Your task to perform on an android device: open app "Move to iOS" (install if not already installed), go to login, and select forgot password Image 0: 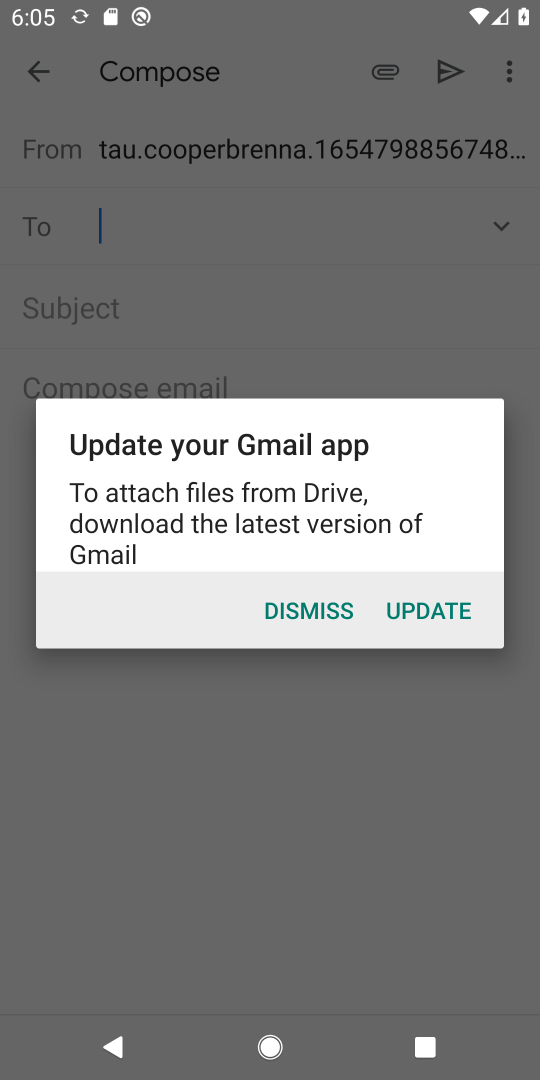
Step 0: press home button
Your task to perform on an android device: open app "Move to iOS" (install if not already installed), go to login, and select forgot password Image 1: 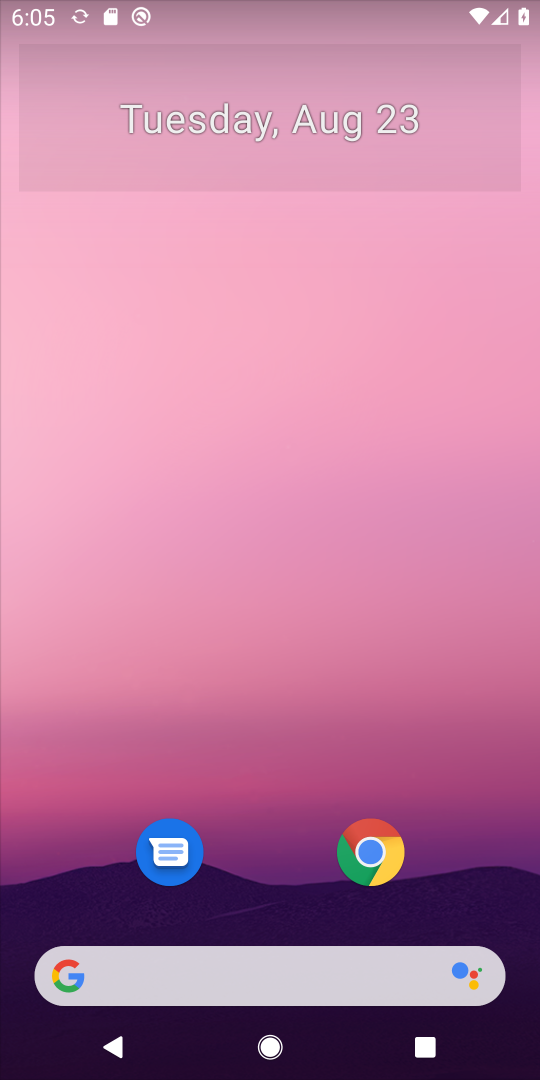
Step 1: drag from (258, 972) to (342, 9)
Your task to perform on an android device: open app "Move to iOS" (install if not already installed), go to login, and select forgot password Image 2: 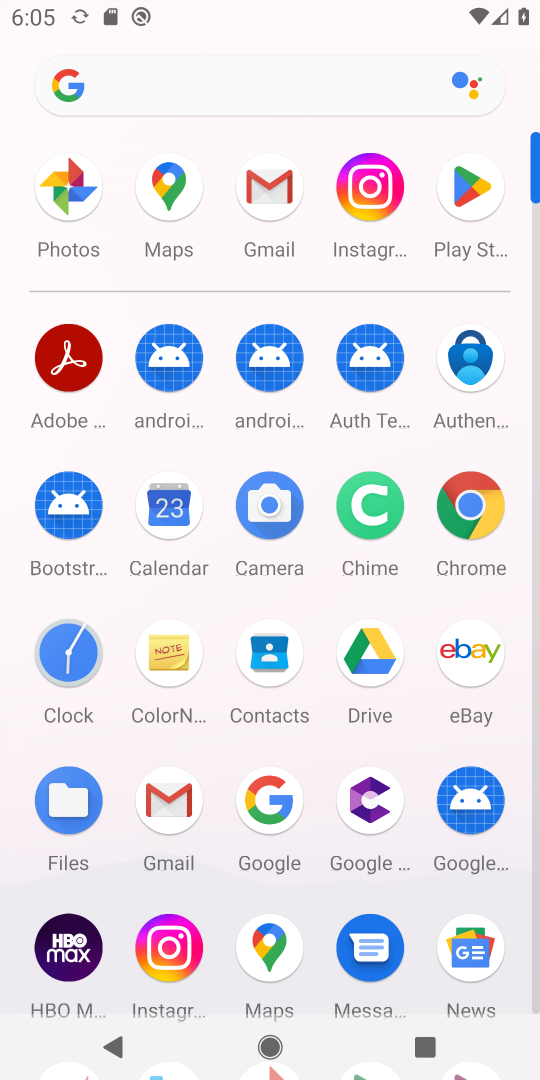
Step 2: click (469, 193)
Your task to perform on an android device: open app "Move to iOS" (install if not already installed), go to login, and select forgot password Image 3: 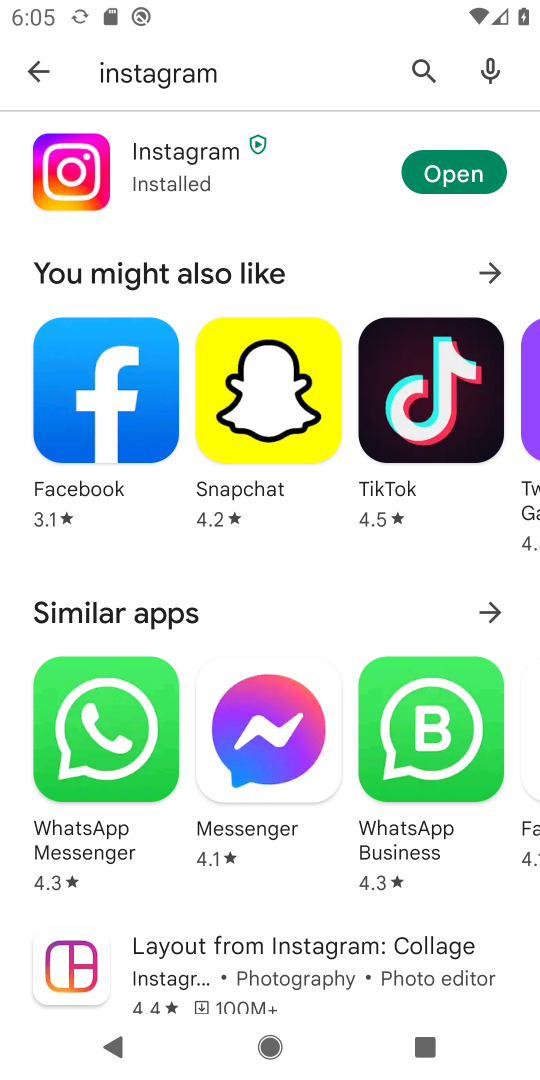
Step 3: press back button
Your task to perform on an android device: open app "Move to iOS" (install if not already installed), go to login, and select forgot password Image 4: 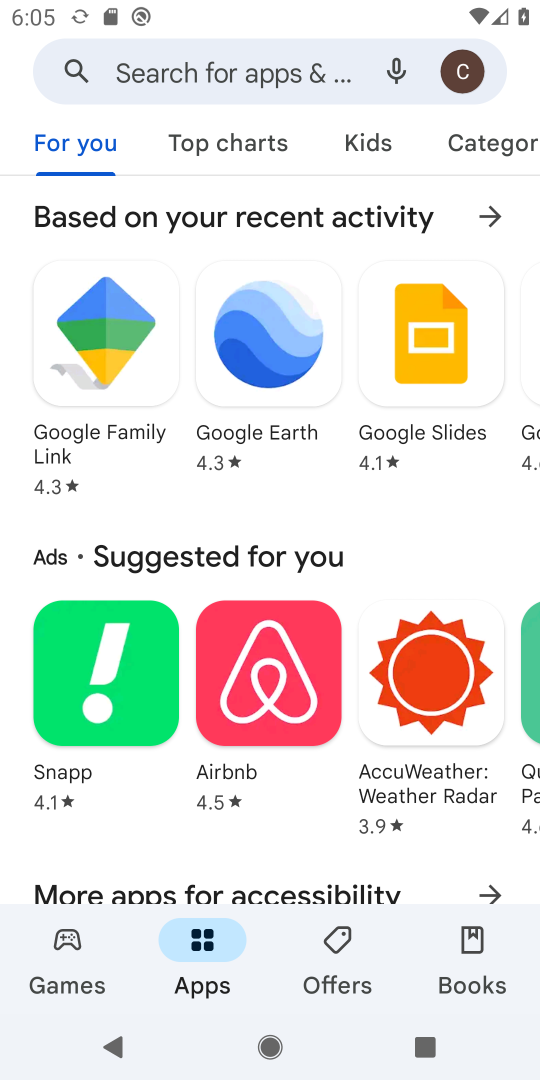
Step 4: click (294, 74)
Your task to perform on an android device: open app "Move to iOS" (install if not already installed), go to login, and select forgot password Image 5: 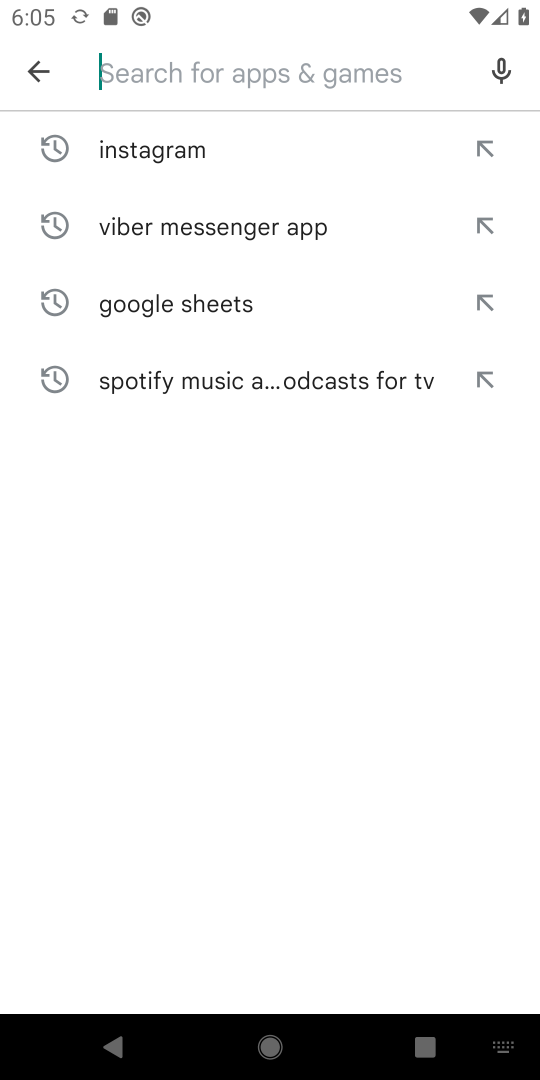
Step 5: type "Move to iOS"
Your task to perform on an android device: open app "Move to iOS" (install if not already installed), go to login, and select forgot password Image 6: 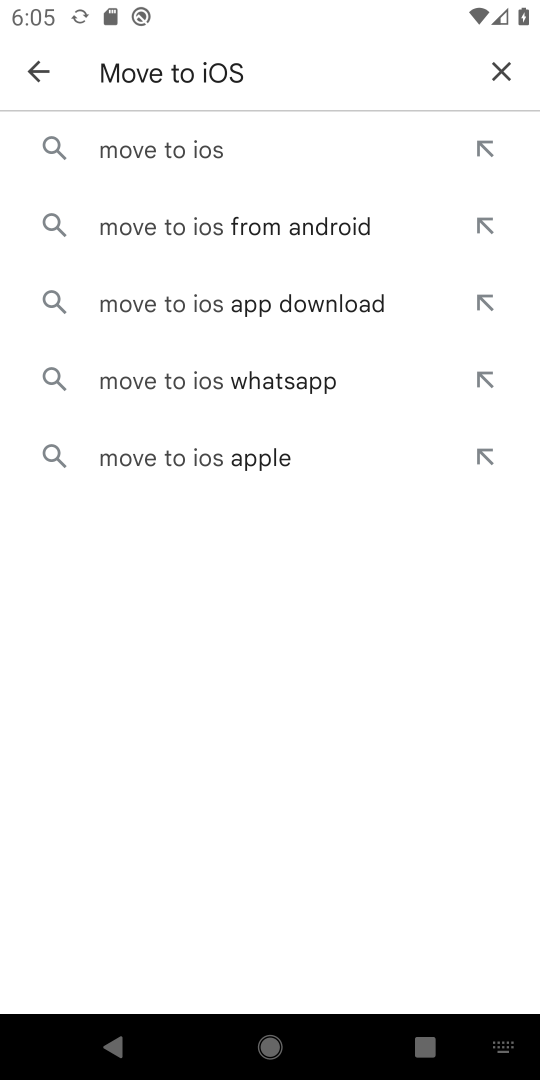
Step 6: click (201, 150)
Your task to perform on an android device: open app "Move to iOS" (install if not already installed), go to login, and select forgot password Image 7: 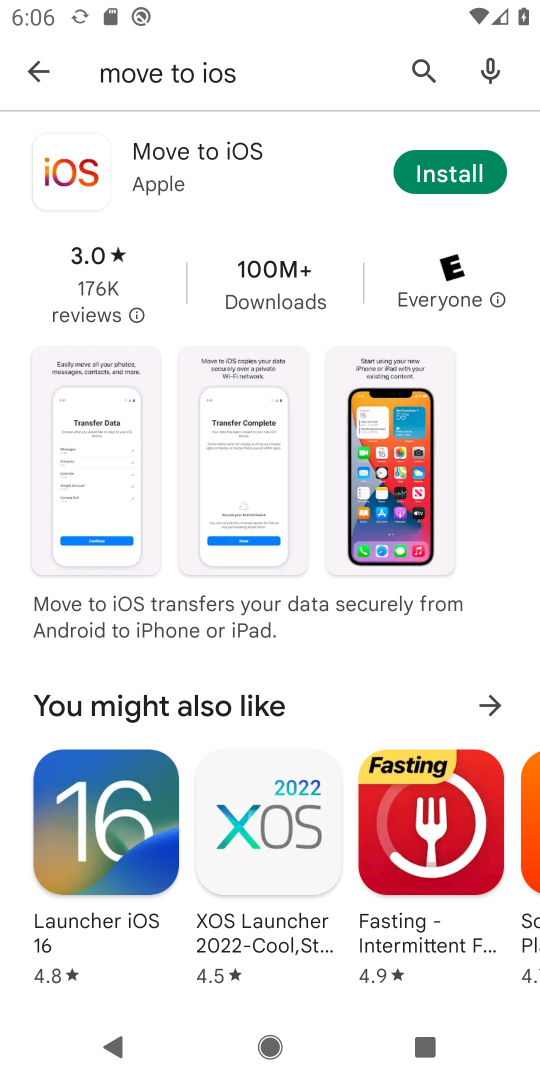
Step 7: click (457, 179)
Your task to perform on an android device: open app "Move to iOS" (install if not already installed), go to login, and select forgot password Image 8: 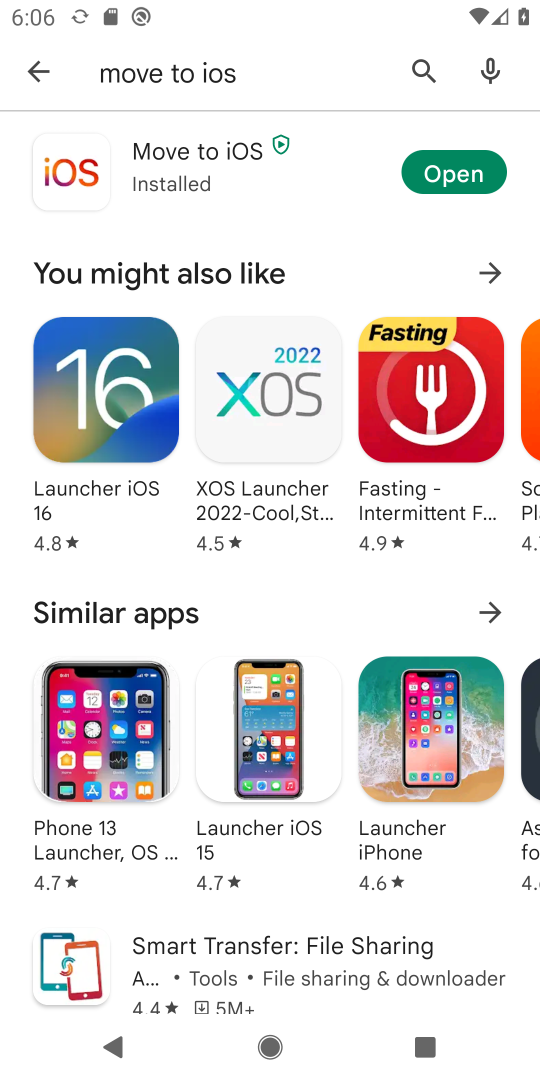
Step 8: click (457, 179)
Your task to perform on an android device: open app "Move to iOS" (install if not already installed), go to login, and select forgot password Image 9: 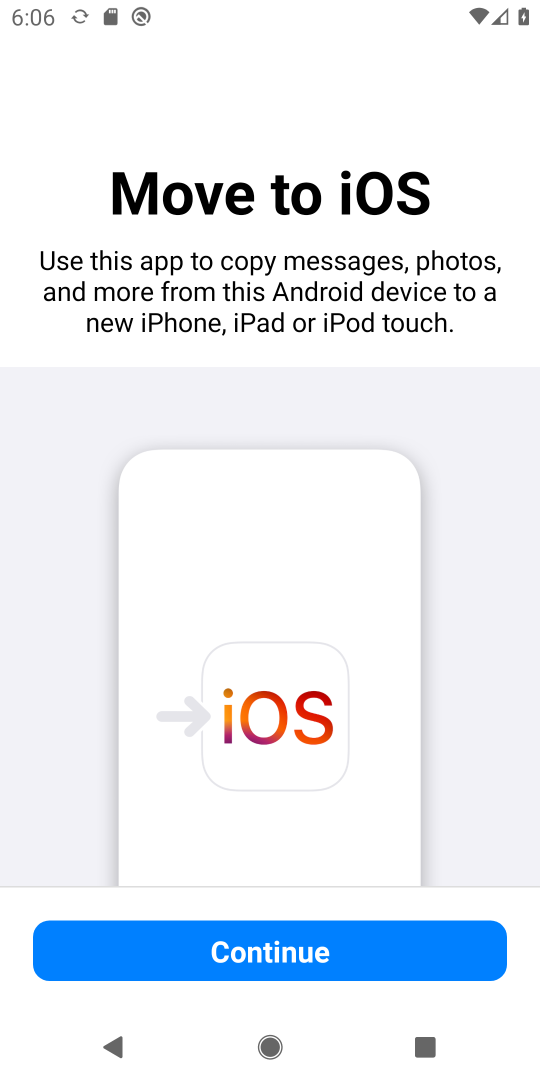
Step 9: click (265, 954)
Your task to perform on an android device: open app "Move to iOS" (install if not already installed), go to login, and select forgot password Image 10: 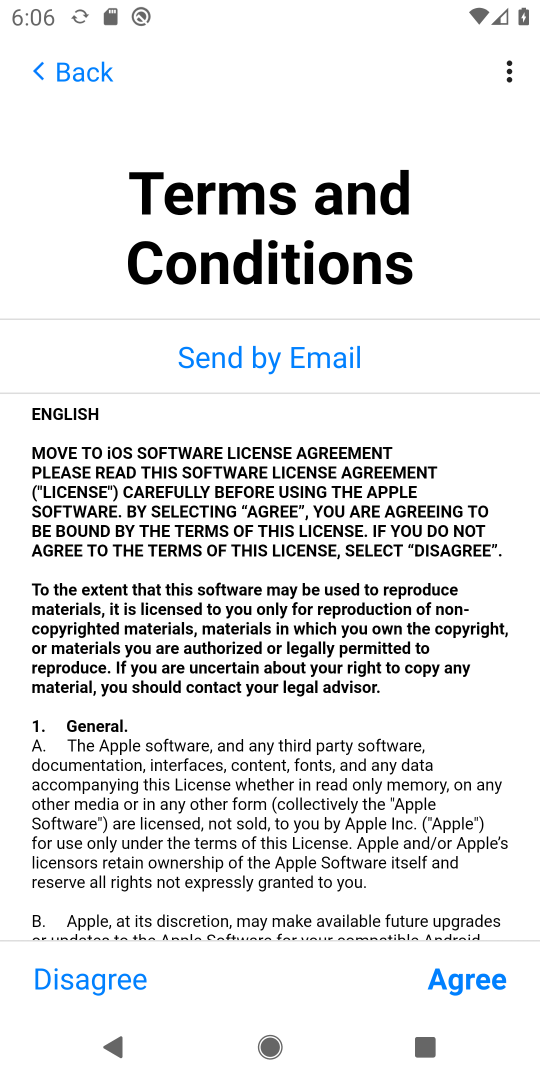
Step 10: click (467, 993)
Your task to perform on an android device: open app "Move to iOS" (install if not already installed), go to login, and select forgot password Image 11: 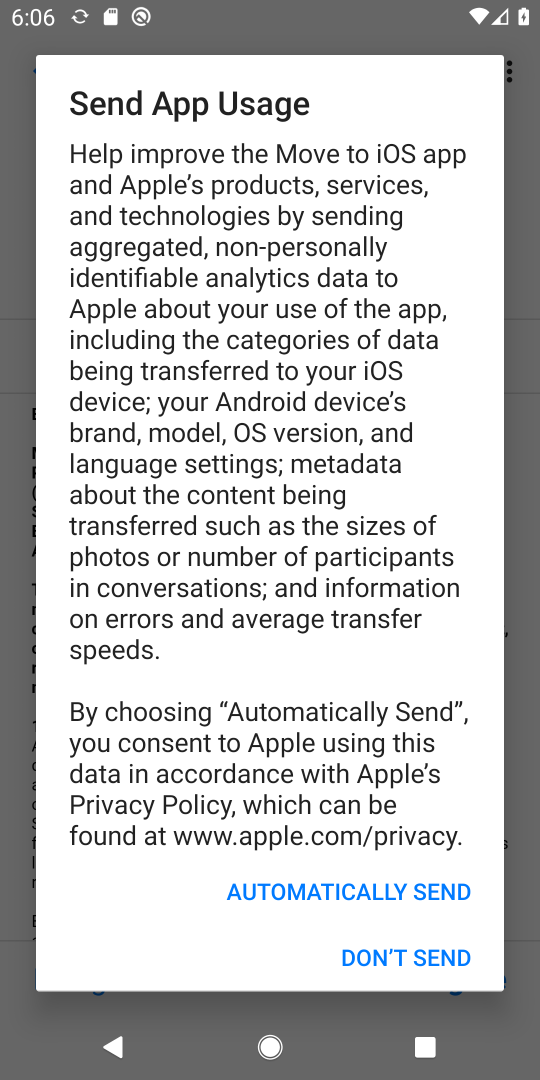
Step 11: click (442, 952)
Your task to perform on an android device: open app "Move to iOS" (install if not already installed), go to login, and select forgot password Image 12: 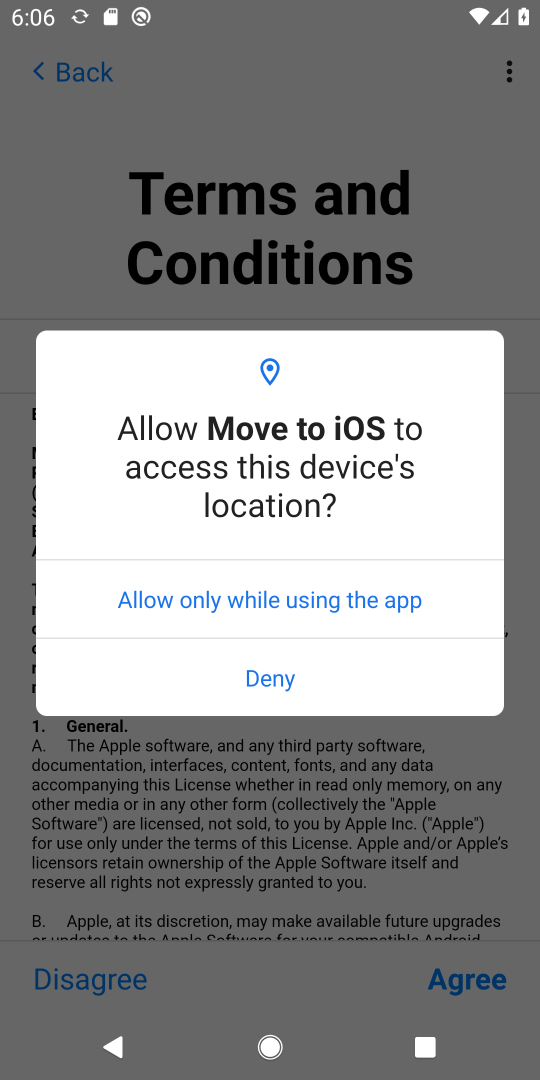
Step 12: click (271, 662)
Your task to perform on an android device: open app "Move to iOS" (install if not already installed), go to login, and select forgot password Image 13: 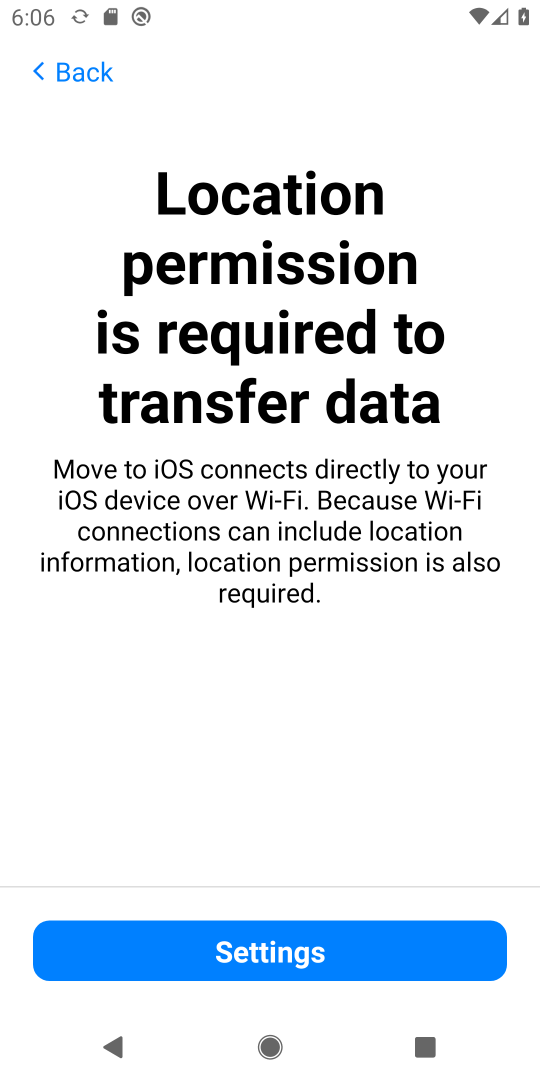
Step 13: click (289, 965)
Your task to perform on an android device: open app "Move to iOS" (install if not already installed), go to login, and select forgot password Image 14: 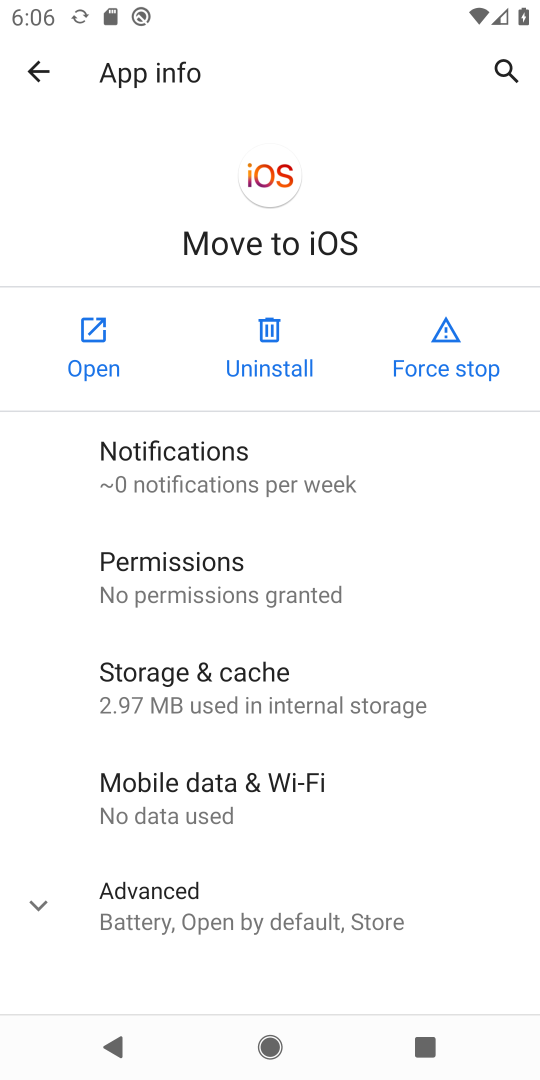
Step 14: drag from (263, 538) to (324, 576)
Your task to perform on an android device: open app "Move to iOS" (install if not already installed), go to login, and select forgot password Image 15: 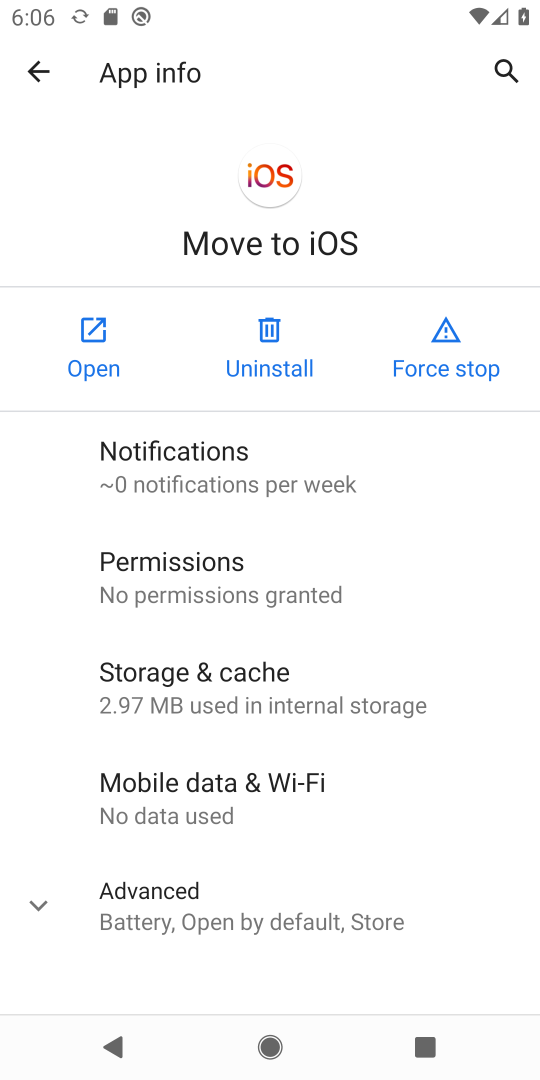
Step 15: drag from (282, 756) to (327, 298)
Your task to perform on an android device: open app "Move to iOS" (install if not already installed), go to login, and select forgot password Image 16: 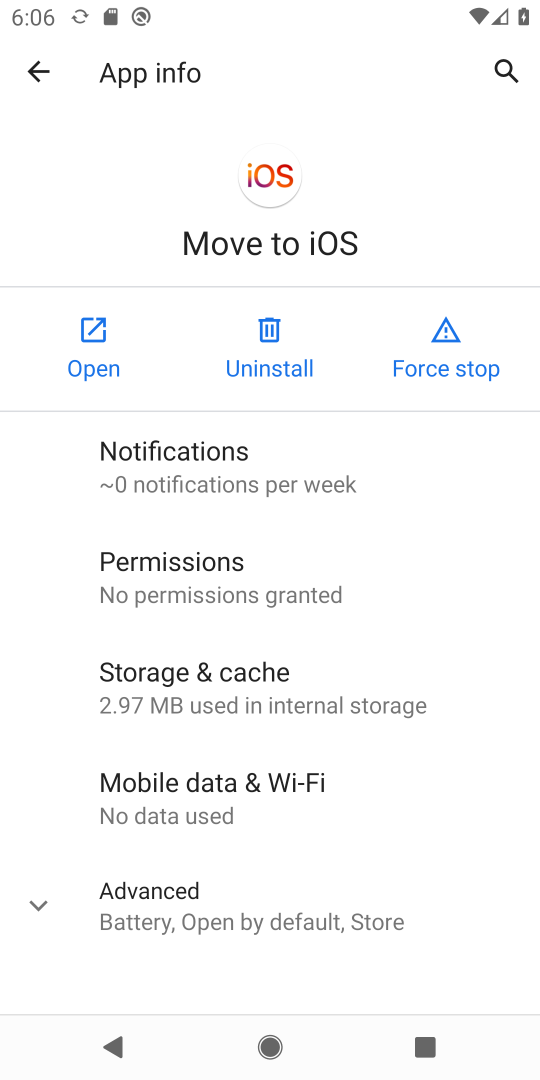
Step 16: click (89, 329)
Your task to perform on an android device: open app "Move to iOS" (install if not already installed), go to login, and select forgot password Image 17: 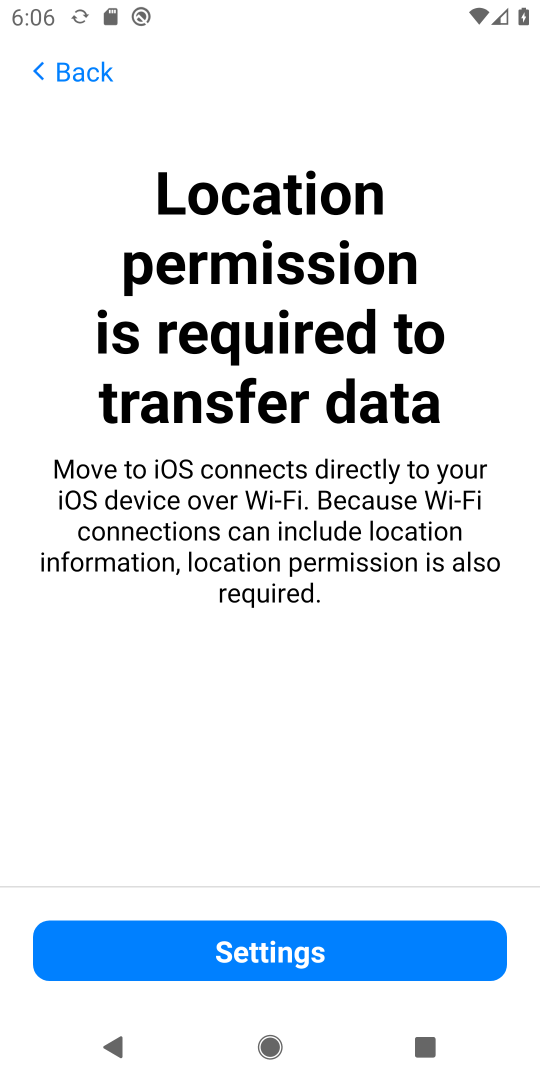
Step 17: click (262, 961)
Your task to perform on an android device: open app "Move to iOS" (install if not already installed), go to login, and select forgot password Image 18: 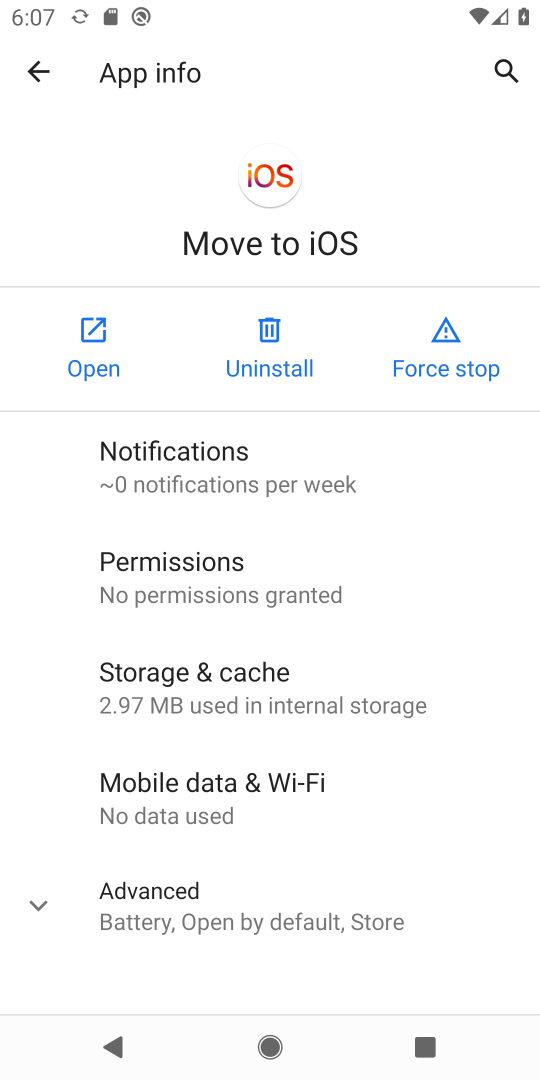
Step 18: click (280, 599)
Your task to perform on an android device: open app "Move to iOS" (install if not already installed), go to login, and select forgot password Image 19: 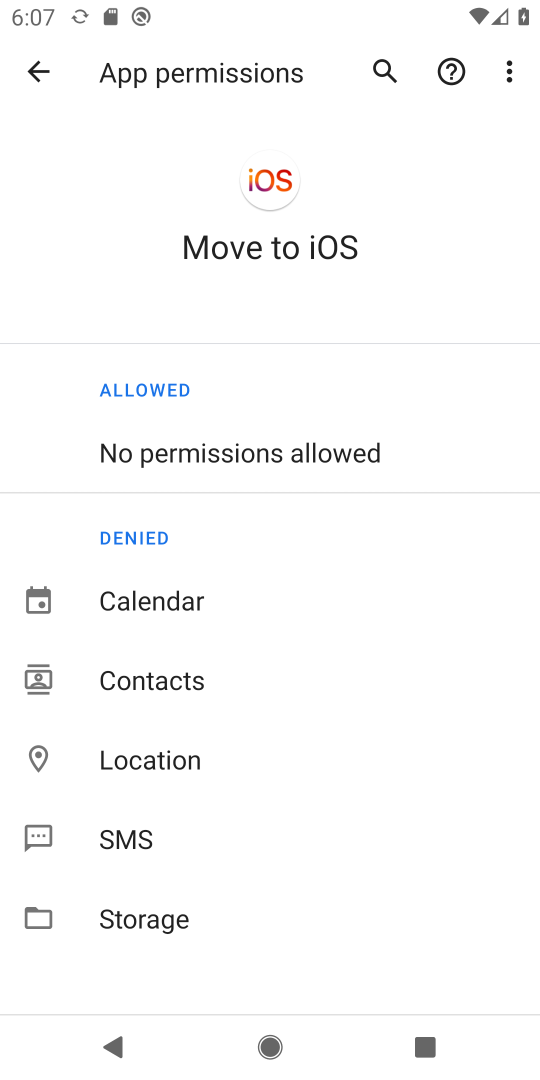
Step 19: click (216, 458)
Your task to perform on an android device: open app "Move to iOS" (install if not already installed), go to login, and select forgot password Image 20: 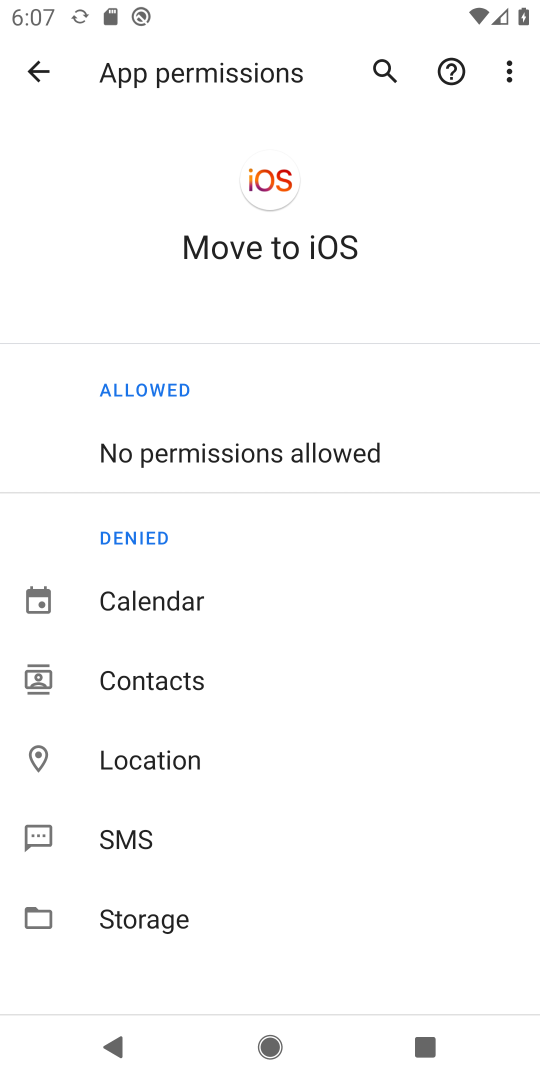
Step 20: click (216, 458)
Your task to perform on an android device: open app "Move to iOS" (install if not already installed), go to login, and select forgot password Image 21: 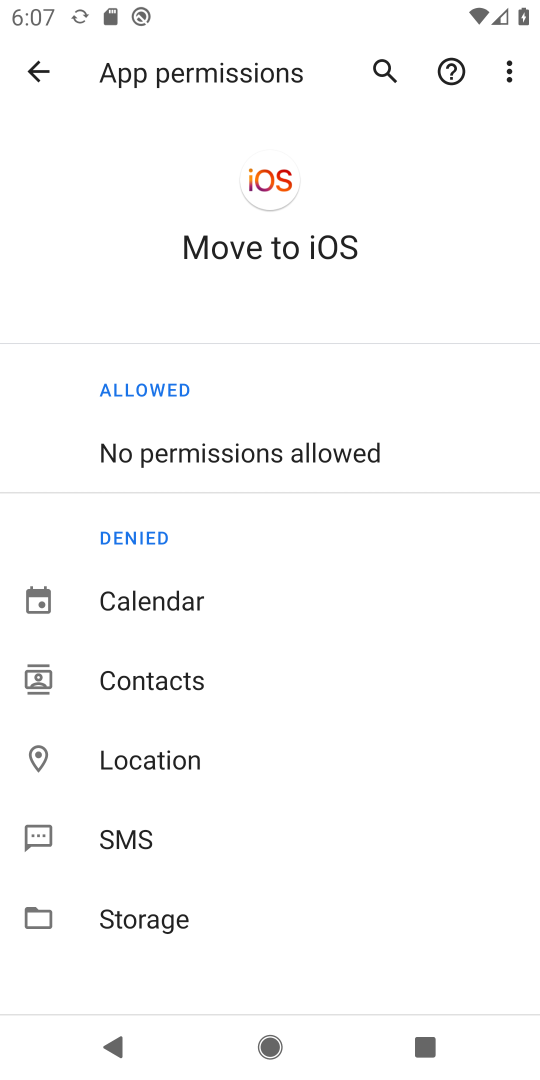
Step 21: click (152, 758)
Your task to perform on an android device: open app "Move to iOS" (install if not already installed), go to login, and select forgot password Image 22: 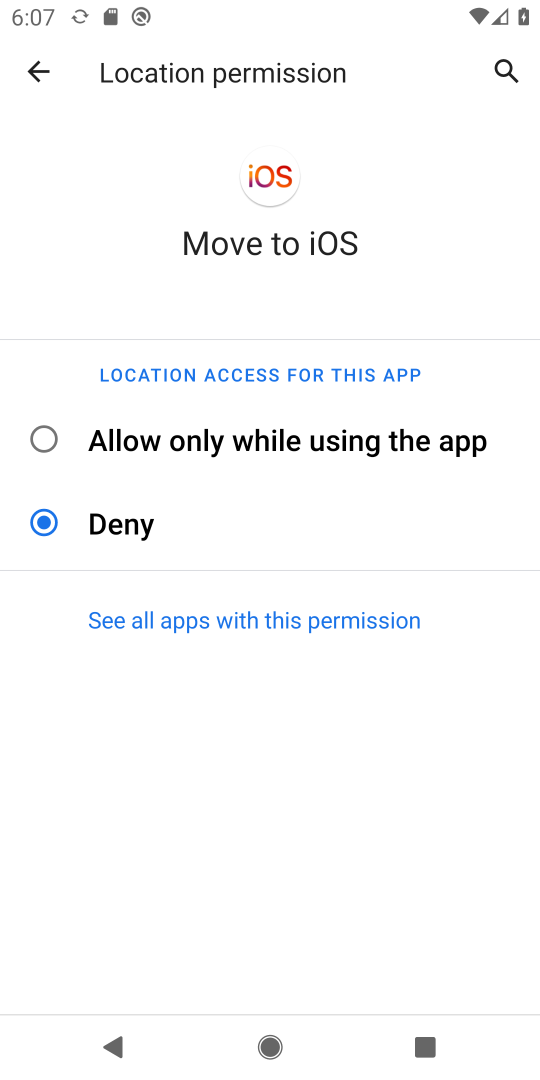
Step 22: click (42, 439)
Your task to perform on an android device: open app "Move to iOS" (install if not already installed), go to login, and select forgot password Image 23: 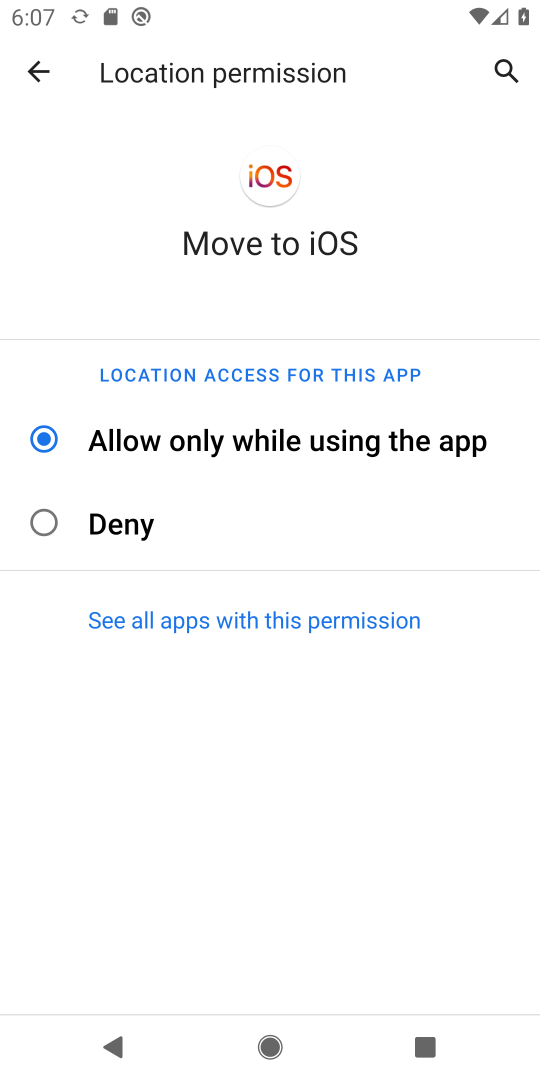
Step 23: press back button
Your task to perform on an android device: open app "Move to iOS" (install if not already installed), go to login, and select forgot password Image 24: 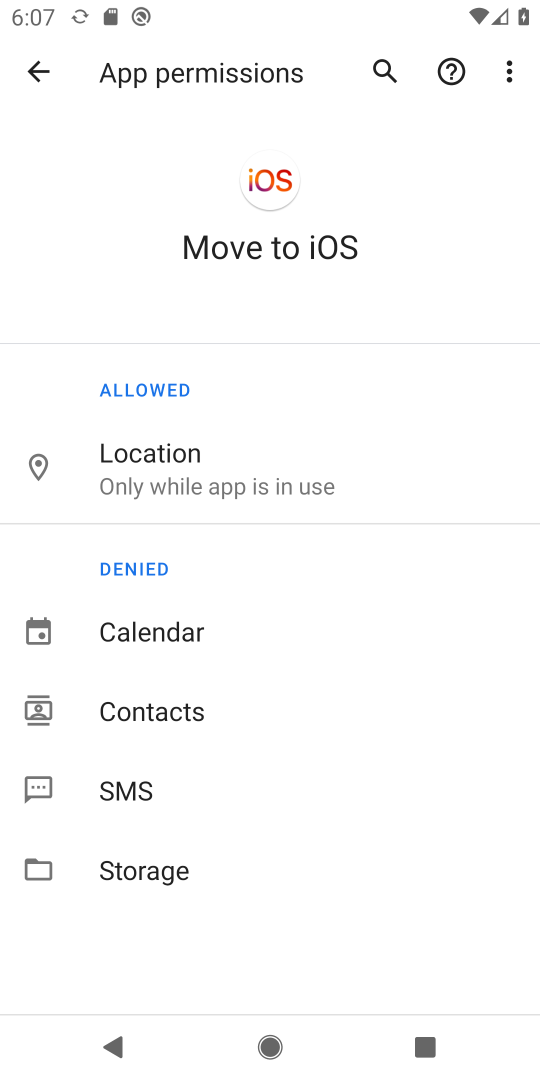
Step 24: press back button
Your task to perform on an android device: open app "Move to iOS" (install if not already installed), go to login, and select forgot password Image 25: 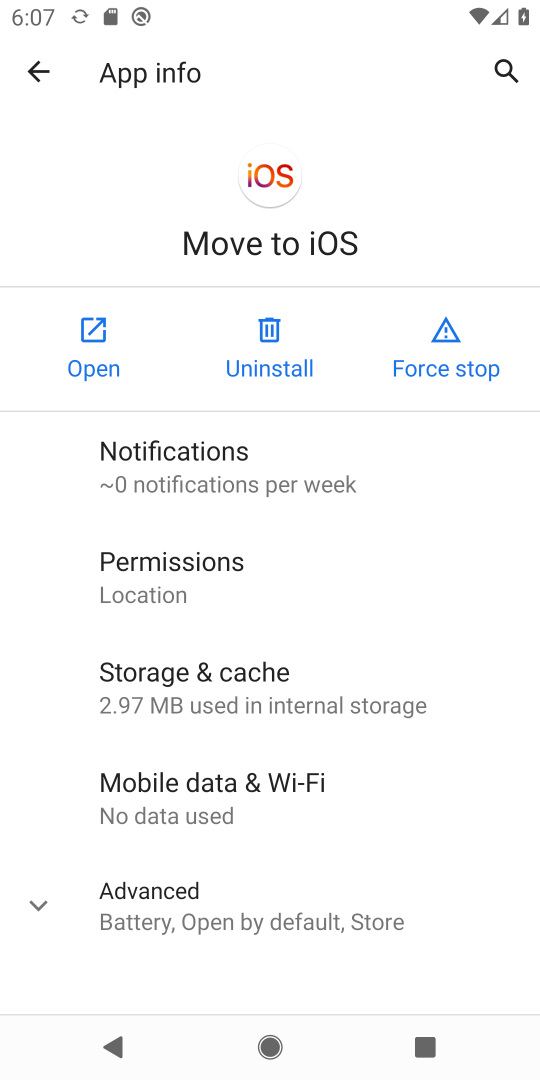
Step 25: click (91, 341)
Your task to perform on an android device: open app "Move to iOS" (install if not already installed), go to login, and select forgot password Image 26: 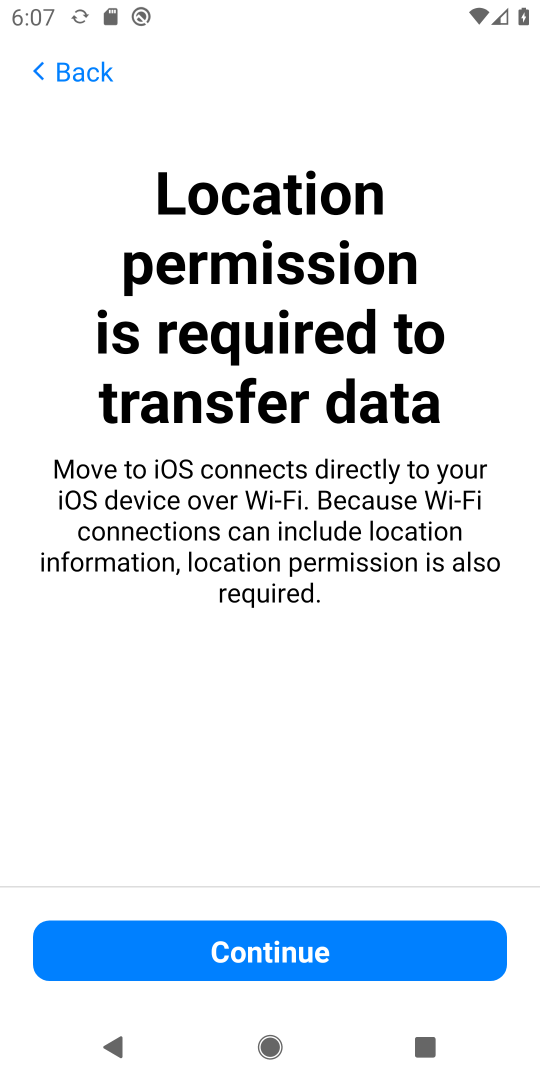
Step 26: click (308, 944)
Your task to perform on an android device: open app "Move to iOS" (install if not already installed), go to login, and select forgot password Image 27: 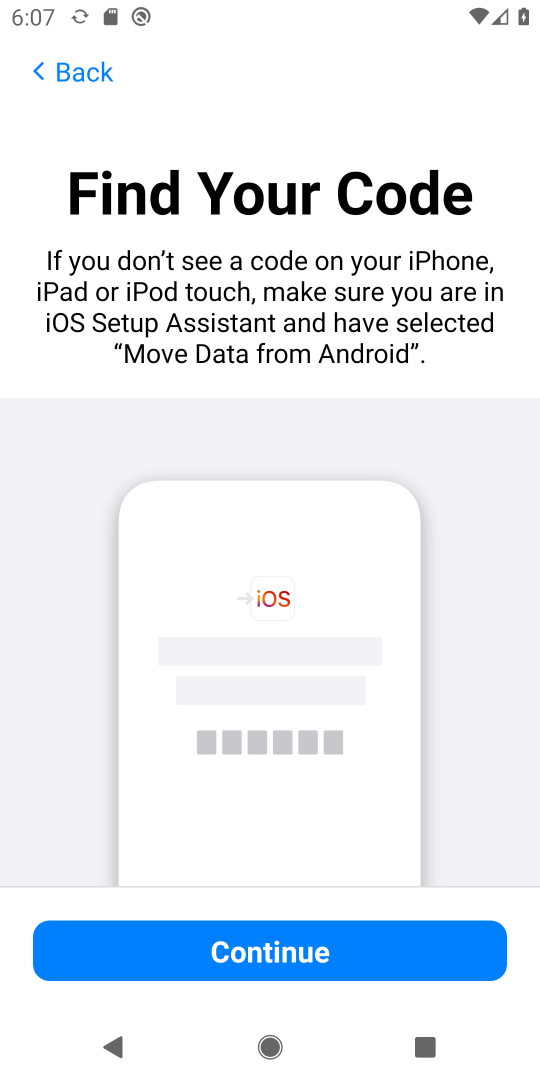
Step 27: click (308, 944)
Your task to perform on an android device: open app "Move to iOS" (install if not already installed), go to login, and select forgot password Image 28: 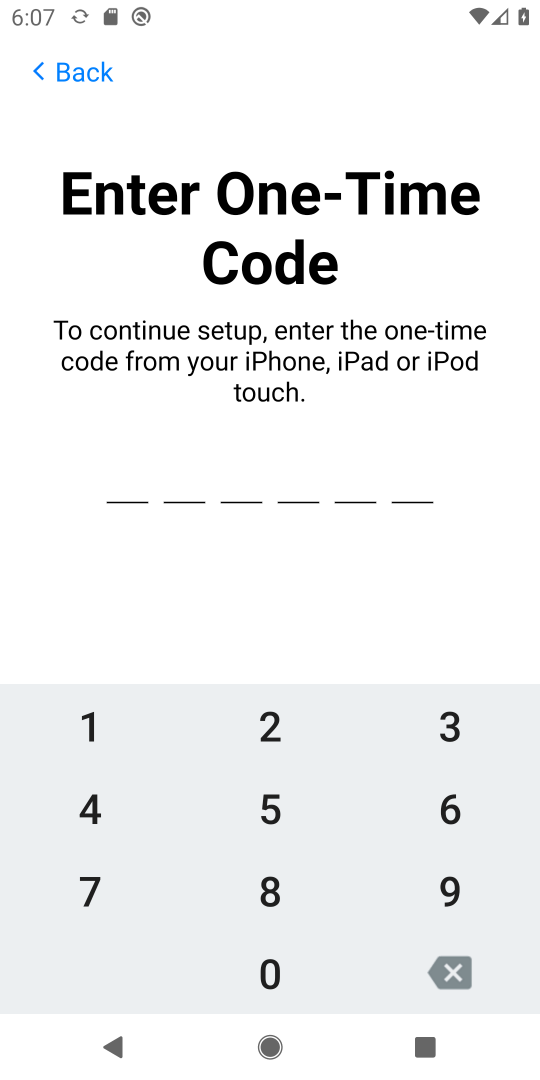
Step 28: task complete